Your task to perform on an android device: change keyboard looks Image 0: 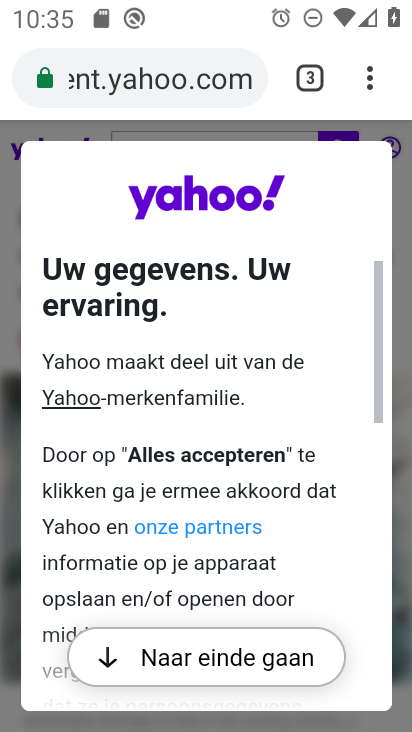
Step 0: press home button
Your task to perform on an android device: change keyboard looks Image 1: 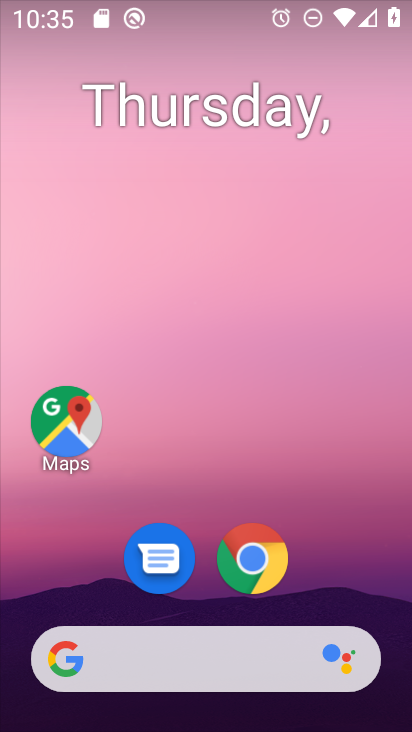
Step 1: drag from (380, 620) to (340, 81)
Your task to perform on an android device: change keyboard looks Image 2: 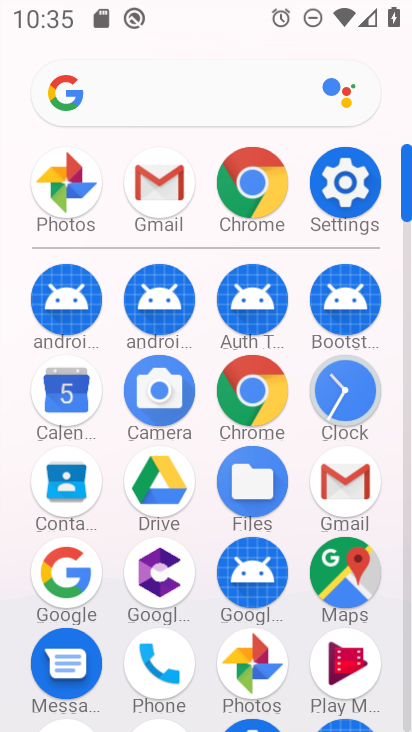
Step 2: click (342, 186)
Your task to perform on an android device: change keyboard looks Image 3: 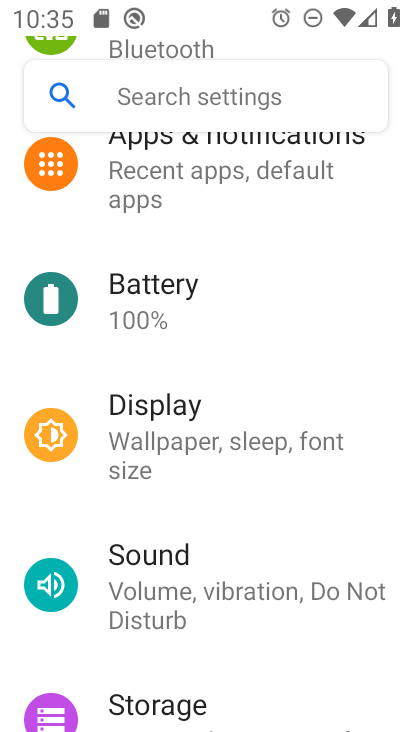
Step 3: drag from (276, 586) to (255, 241)
Your task to perform on an android device: change keyboard looks Image 4: 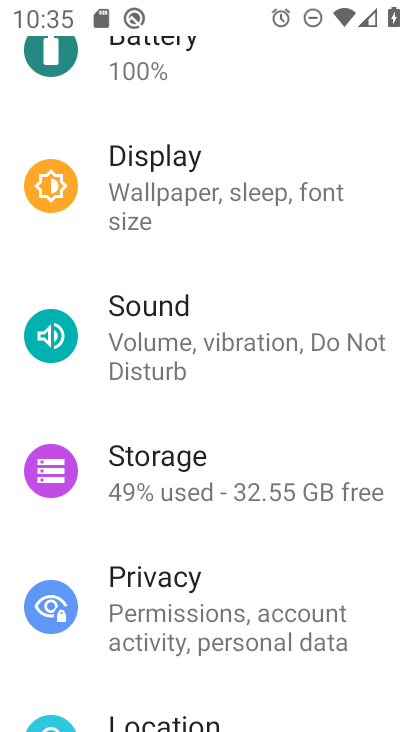
Step 4: drag from (228, 650) to (226, 263)
Your task to perform on an android device: change keyboard looks Image 5: 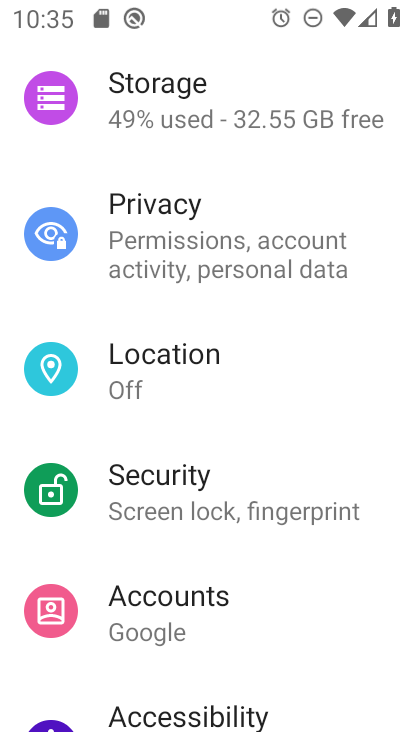
Step 5: drag from (195, 642) to (244, 234)
Your task to perform on an android device: change keyboard looks Image 6: 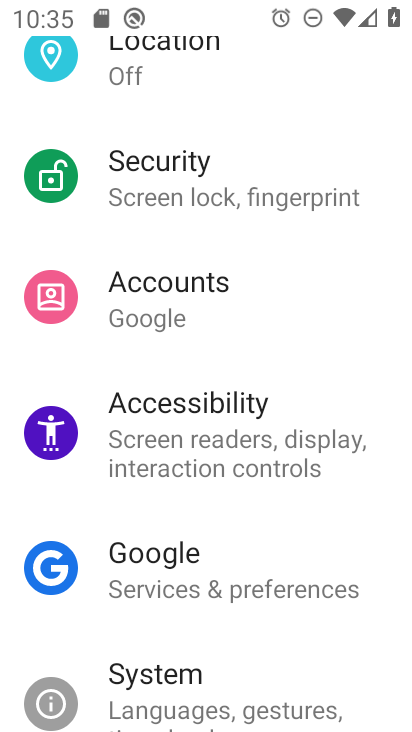
Step 6: drag from (190, 604) to (212, 186)
Your task to perform on an android device: change keyboard looks Image 7: 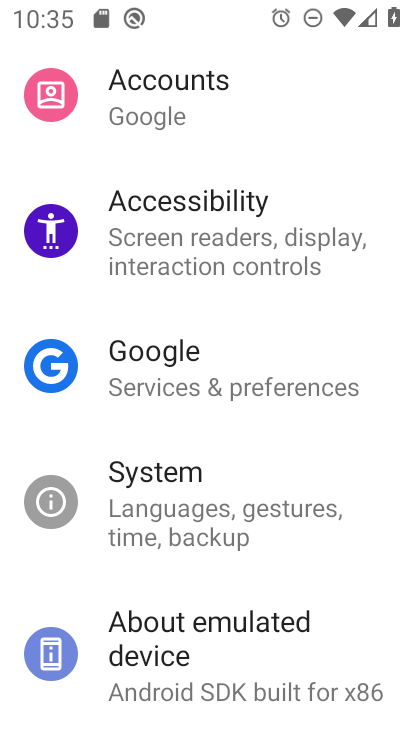
Step 7: click (146, 491)
Your task to perform on an android device: change keyboard looks Image 8: 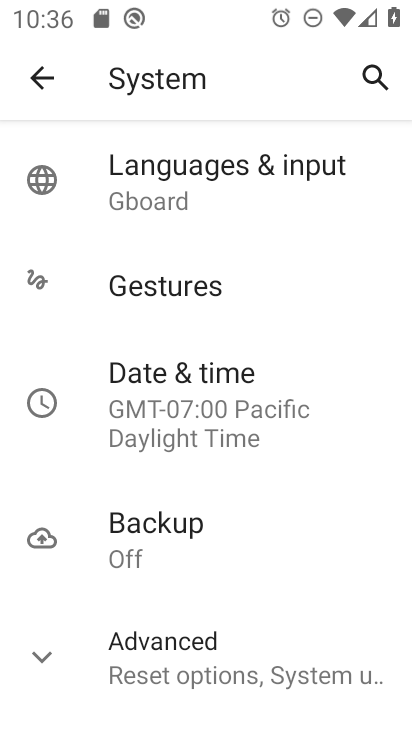
Step 8: drag from (166, 184) to (176, 486)
Your task to perform on an android device: change keyboard looks Image 9: 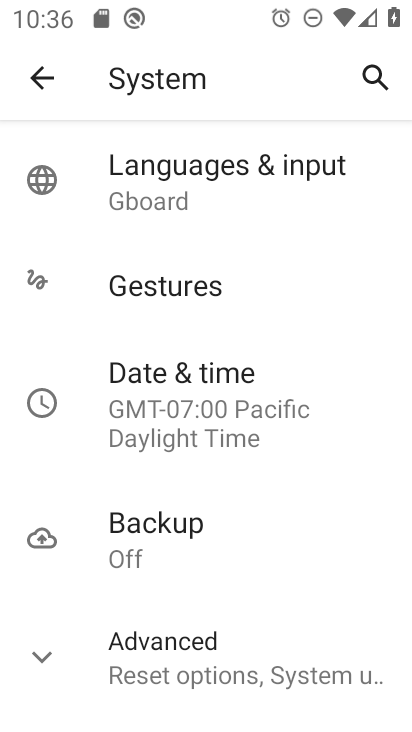
Step 9: click (169, 188)
Your task to perform on an android device: change keyboard looks Image 10: 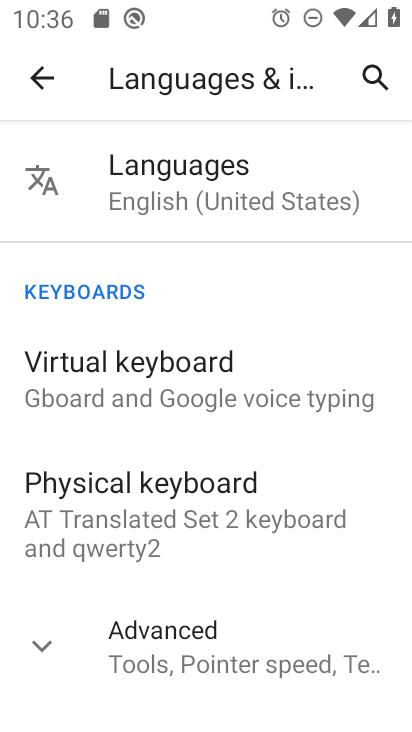
Step 10: click (119, 516)
Your task to perform on an android device: change keyboard looks Image 11: 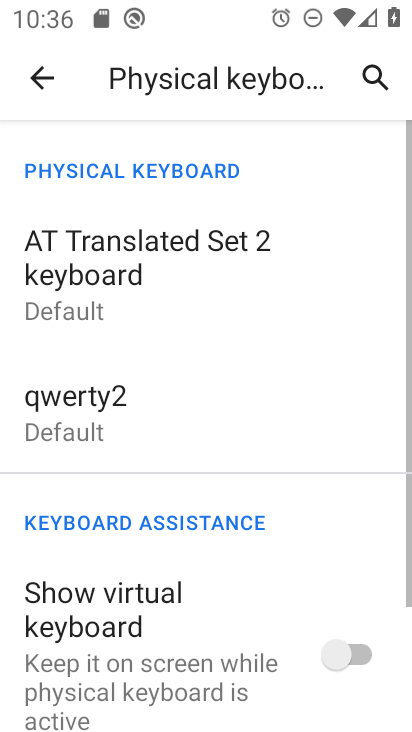
Step 11: click (57, 414)
Your task to perform on an android device: change keyboard looks Image 12: 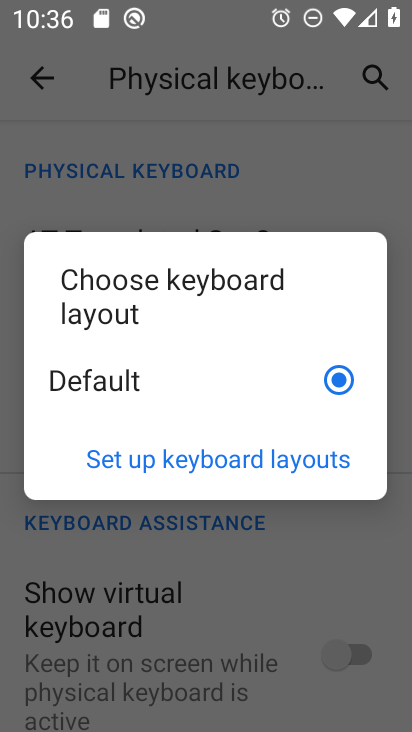
Step 12: click (190, 470)
Your task to perform on an android device: change keyboard looks Image 13: 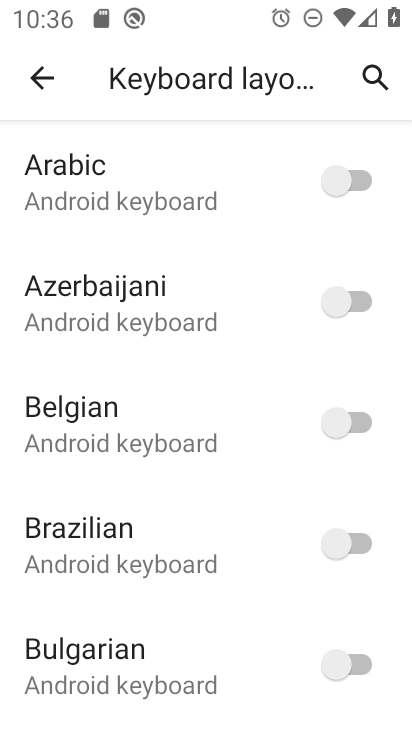
Step 13: click (361, 540)
Your task to perform on an android device: change keyboard looks Image 14: 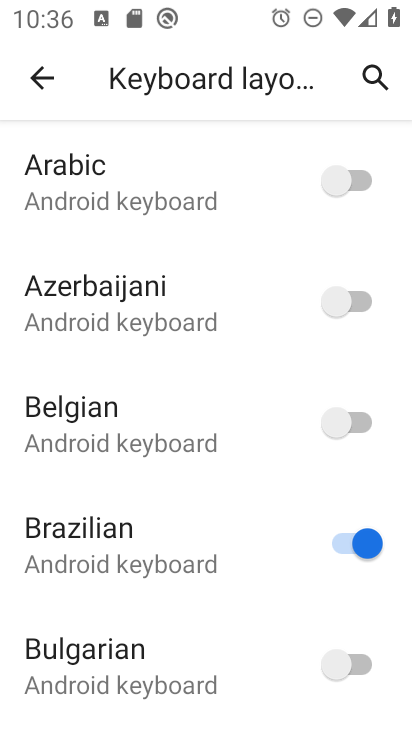
Step 14: task complete